Your task to perform on an android device: open wifi settings Image 0: 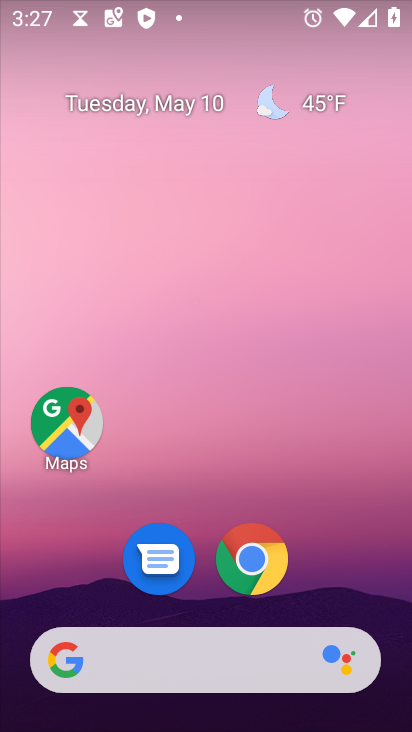
Step 0: drag from (388, 676) to (219, 61)
Your task to perform on an android device: open wifi settings Image 1: 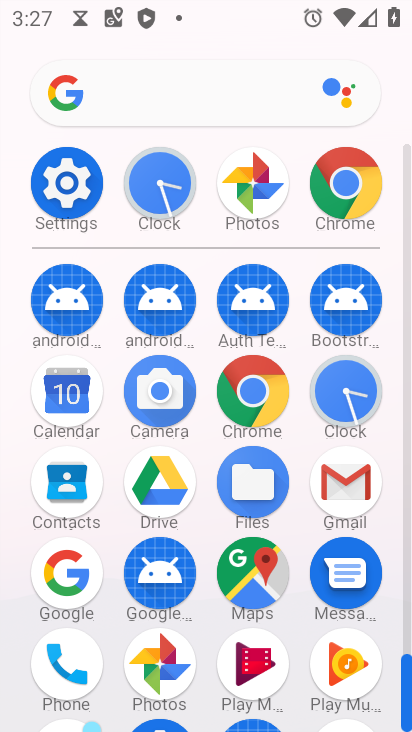
Step 1: click (63, 180)
Your task to perform on an android device: open wifi settings Image 2: 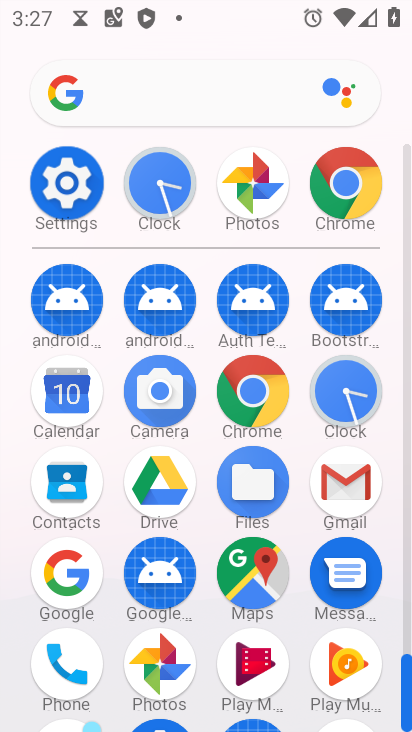
Step 2: click (64, 180)
Your task to perform on an android device: open wifi settings Image 3: 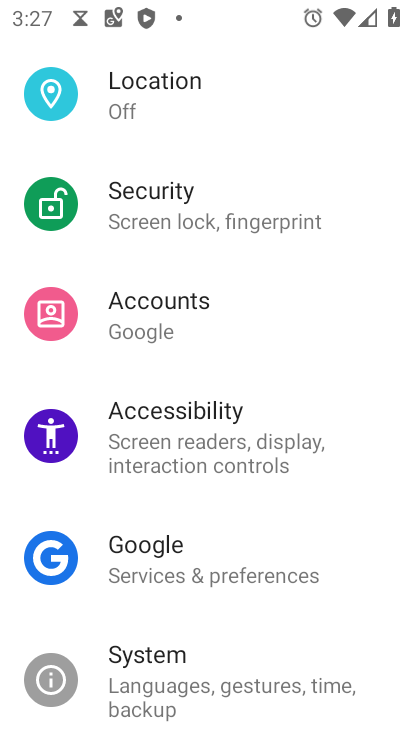
Step 3: click (64, 180)
Your task to perform on an android device: open wifi settings Image 4: 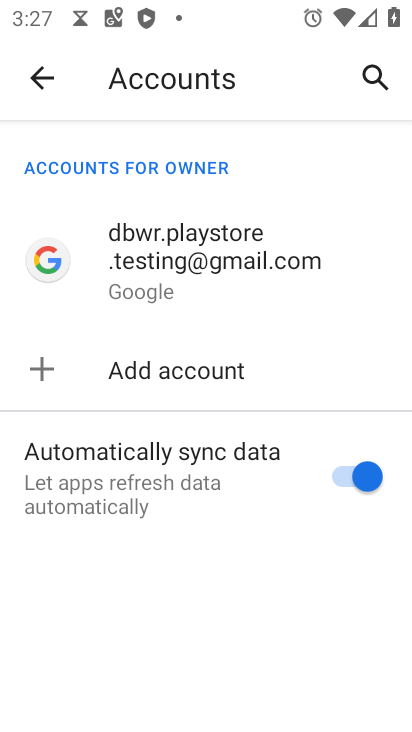
Step 4: click (44, 74)
Your task to perform on an android device: open wifi settings Image 5: 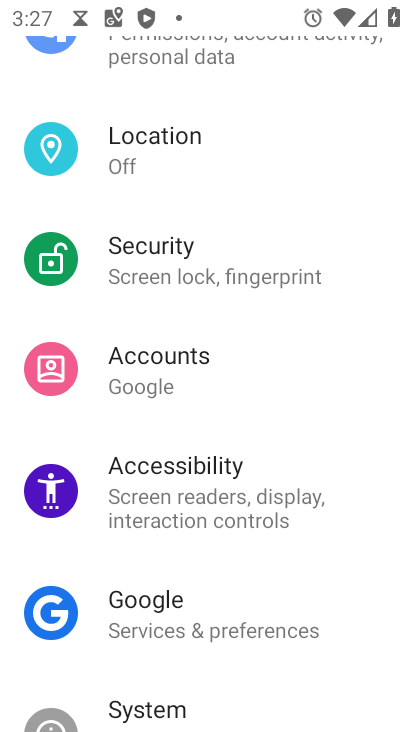
Step 5: drag from (158, 176) to (228, 456)
Your task to perform on an android device: open wifi settings Image 6: 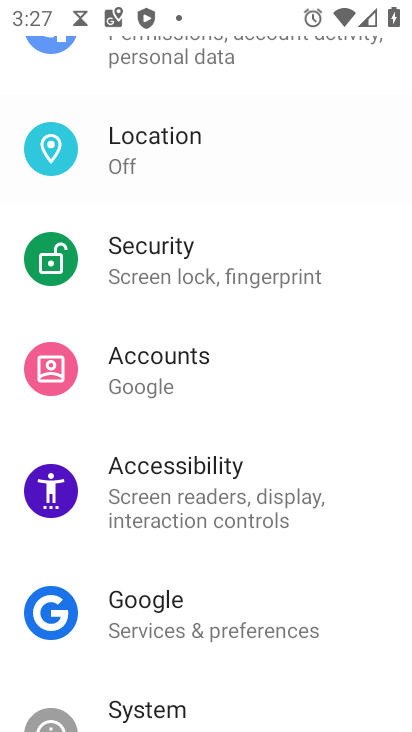
Step 6: click (285, 501)
Your task to perform on an android device: open wifi settings Image 7: 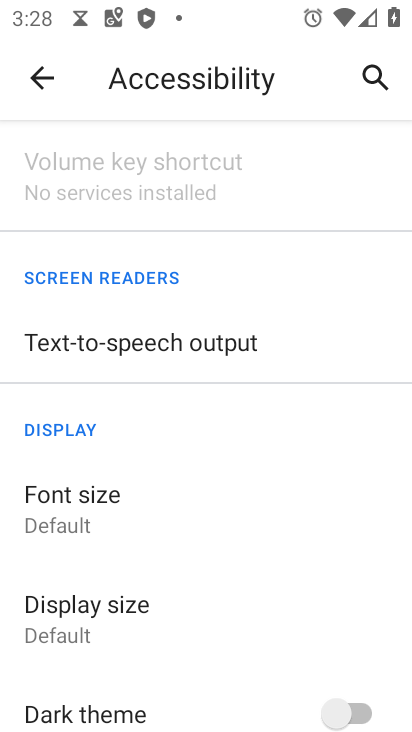
Step 7: click (42, 68)
Your task to perform on an android device: open wifi settings Image 8: 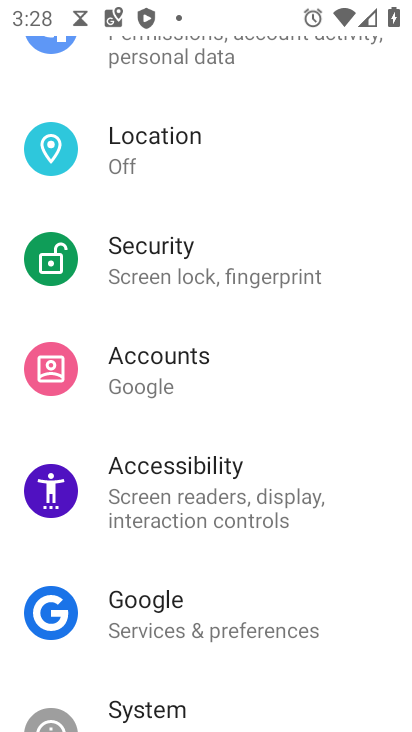
Step 8: task complete